Your task to perform on an android device: see sites visited before in the chrome app Image 0: 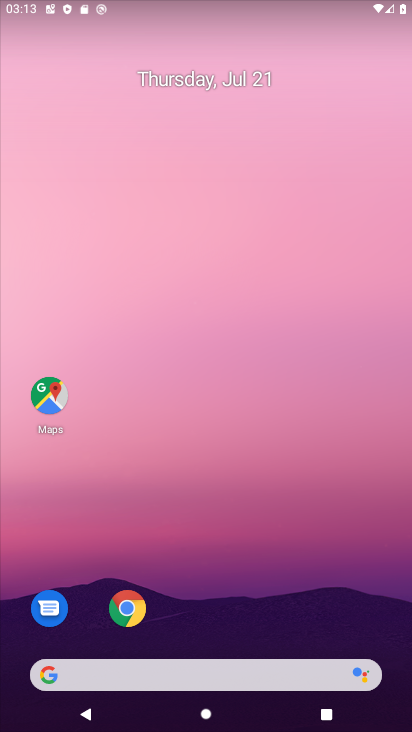
Step 0: drag from (301, 532) to (307, 123)
Your task to perform on an android device: see sites visited before in the chrome app Image 1: 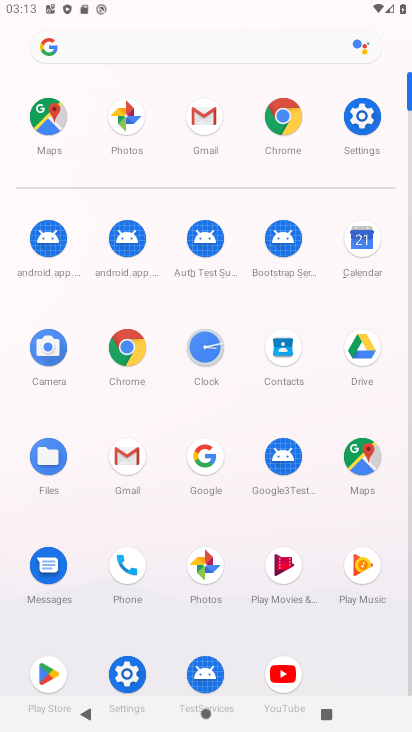
Step 1: click (120, 349)
Your task to perform on an android device: see sites visited before in the chrome app Image 2: 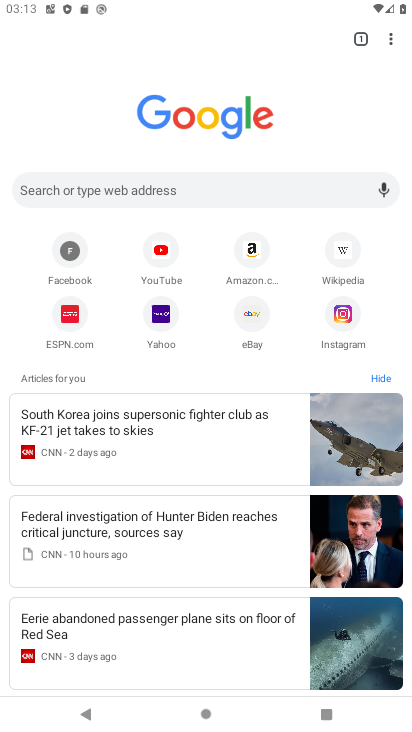
Step 2: drag from (383, 40) to (273, 188)
Your task to perform on an android device: see sites visited before in the chrome app Image 3: 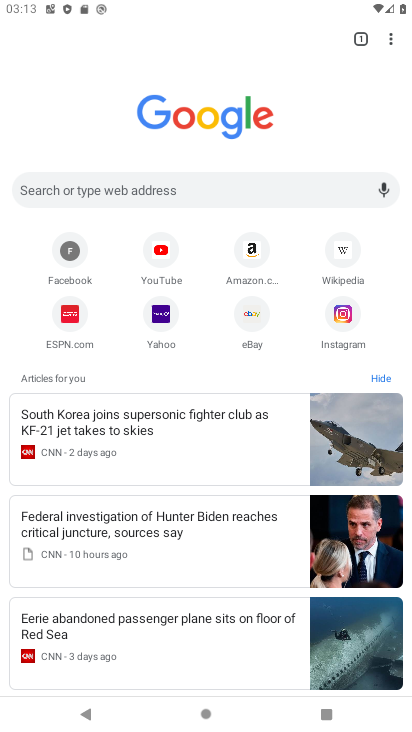
Step 3: click (273, 188)
Your task to perform on an android device: see sites visited before in the chrome app Image 4: 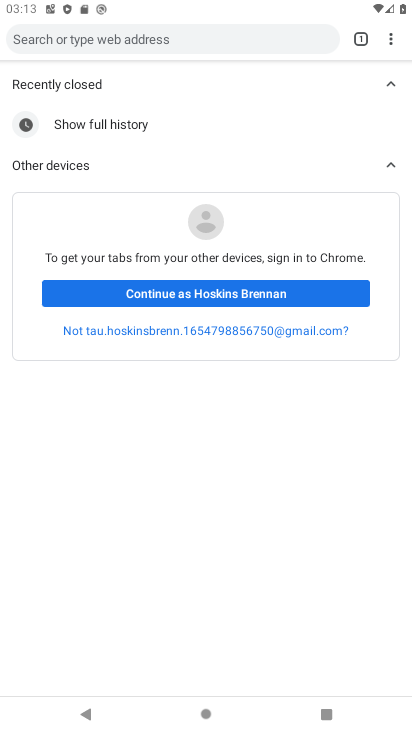
Step 4: task complete